Your task to perform on an android device: turn smart compose on in the gmail app Image 0: 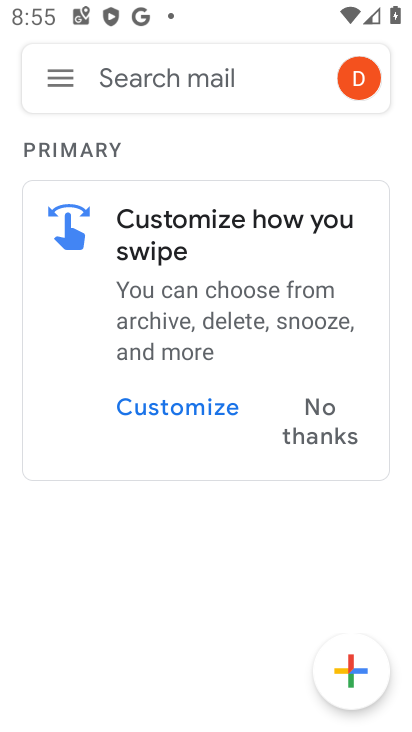
Step 0: click (89, 78)
Your task to perform on an android device: turn smart compose on in the gmail app Image 1: 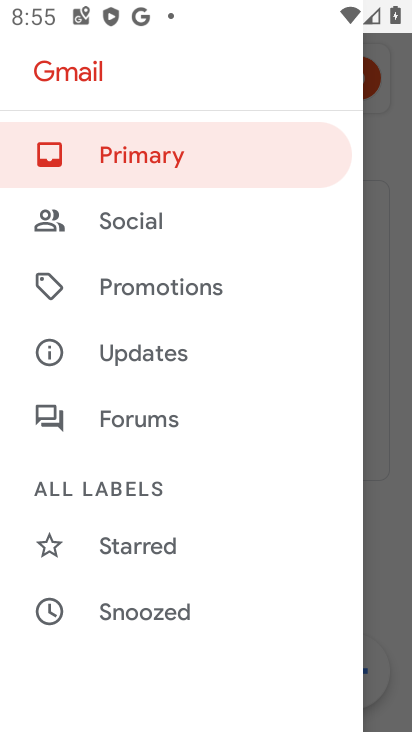
Step 1: drag from (118, 579) to (139, 242)
Your task to perform on an android device: turn smart compose on in the gmail app Image 2: 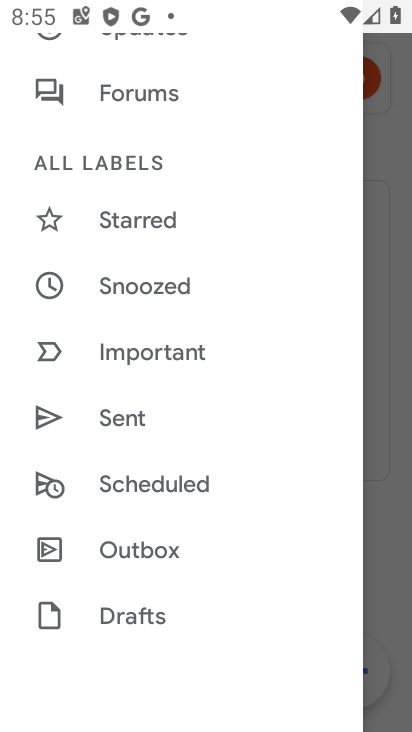
Step 2: drag from (203, 631) to (218, 346)
Your task to perform on an android device: turn smart compose on in the gmail app Image 3: 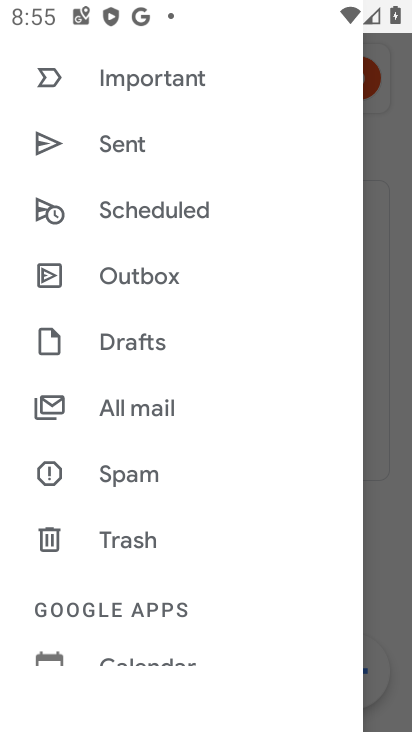
Step 3: drag from (241, 581) to (235, 356)
Your task to perform on an android device: turn smart compose on in the gmail app Image 4: 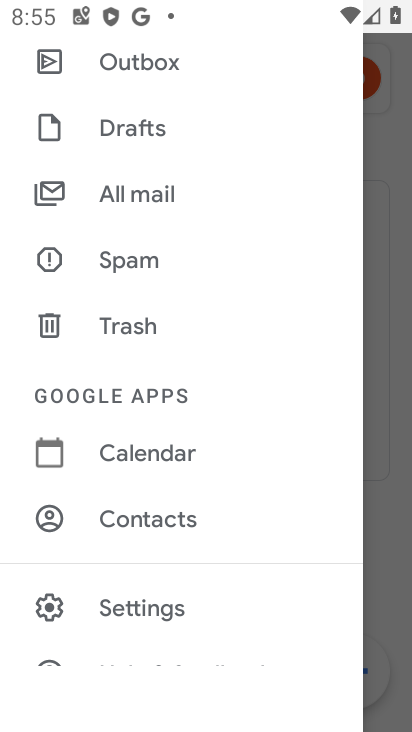
Step 4: click (156, 605)
Your task to perform on an android device: turn smart compose on in the gmail app Image 5: 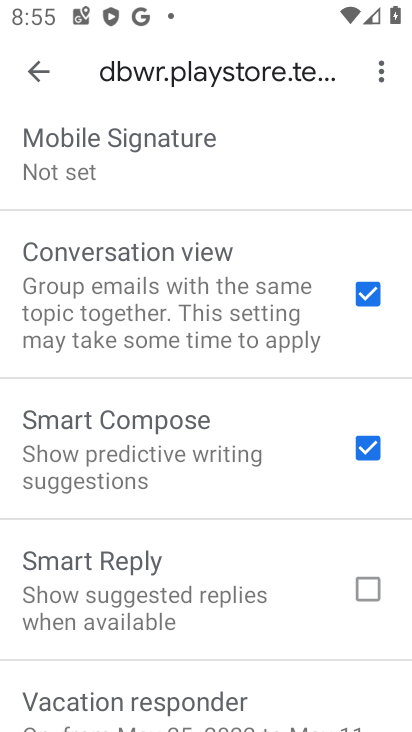
Step 5: task complete